Your task to perform on an android device: uninstall "Upside-Cash back on gas & food" Image 0: 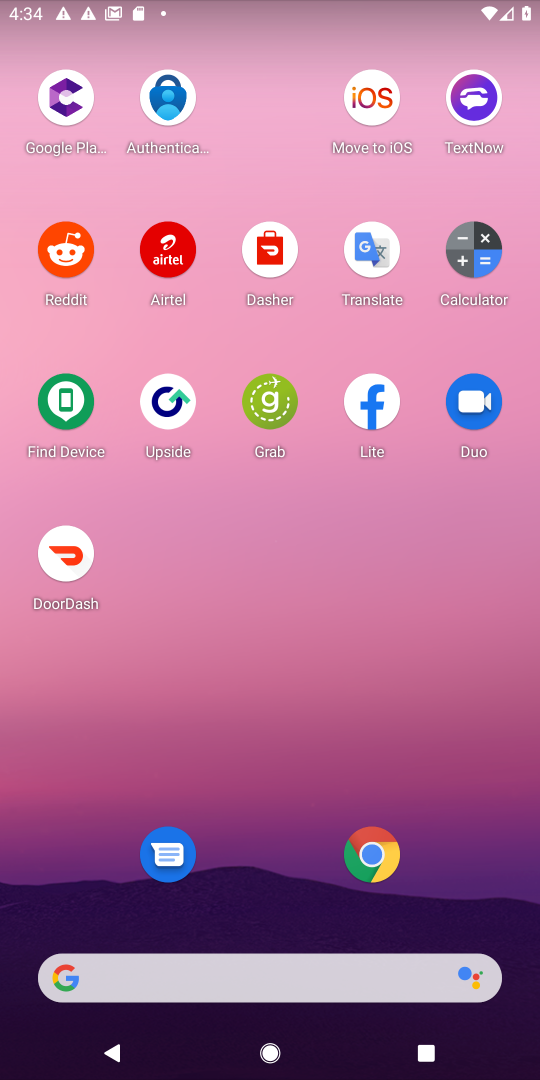
Step 0: drag from (255, 772) to (248, 26)
Your task to perform on an android device: uninstall "Upside-Cash back on gas & food" Image 1: 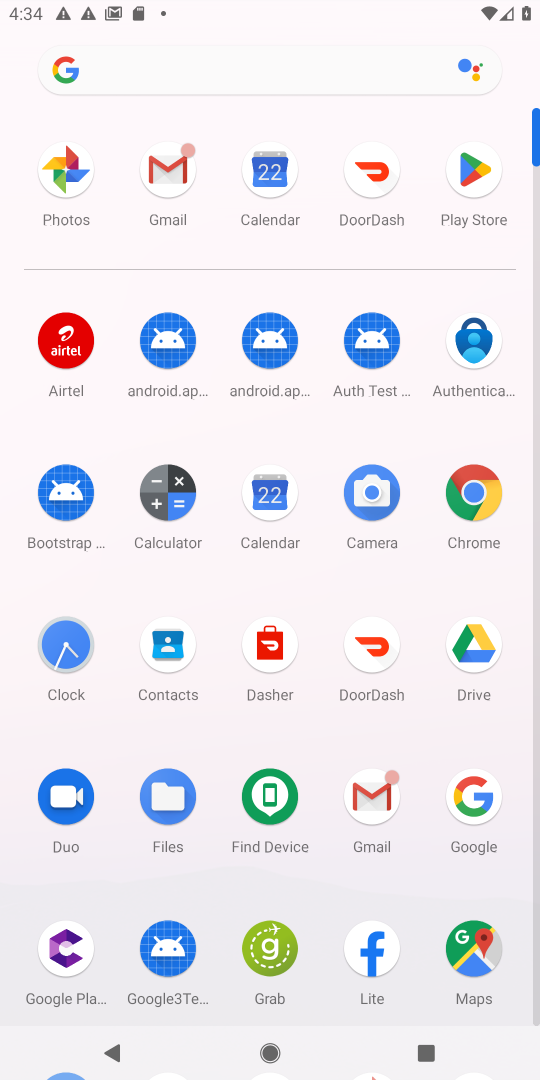
Step 1: click (478, 176)
Your task to perform on an android device: uninstall "Upside-Cash back on gas & food" Image 2: 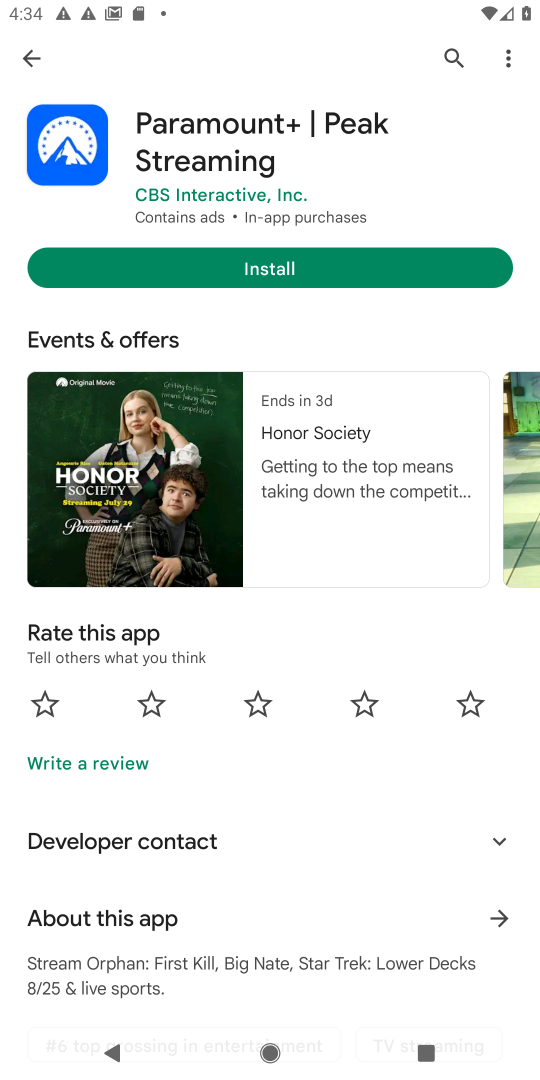
Step 2: click (469, 35)
Your task to perform on an android device: uninstall "Upside-Cash back on gas & food" Image 3: 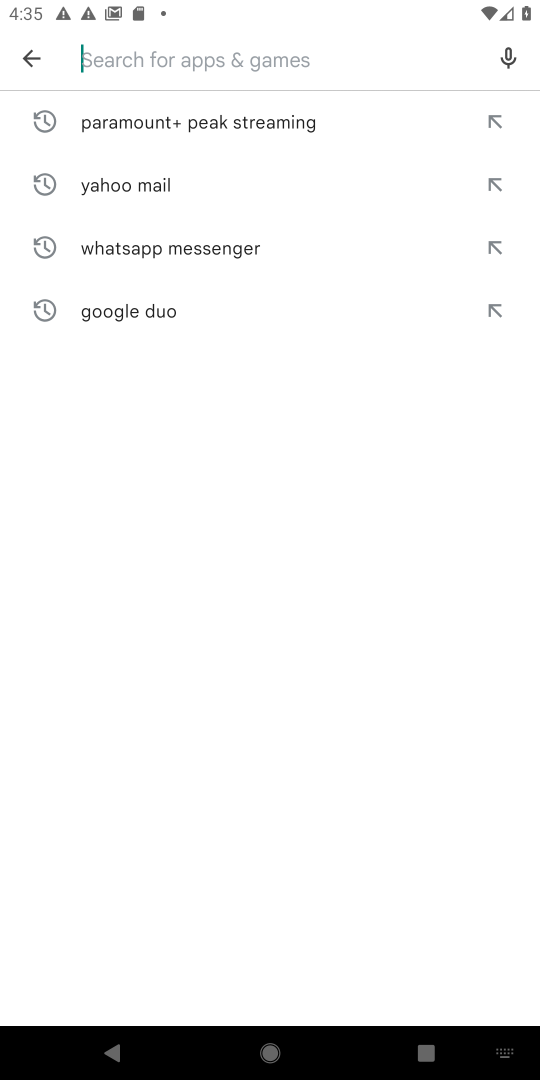
Step 3: type "Upside-Cash back on gas & food"
Your task to perform on an android device: uninstall "Upside-Cash back on gas & food" Image 4: 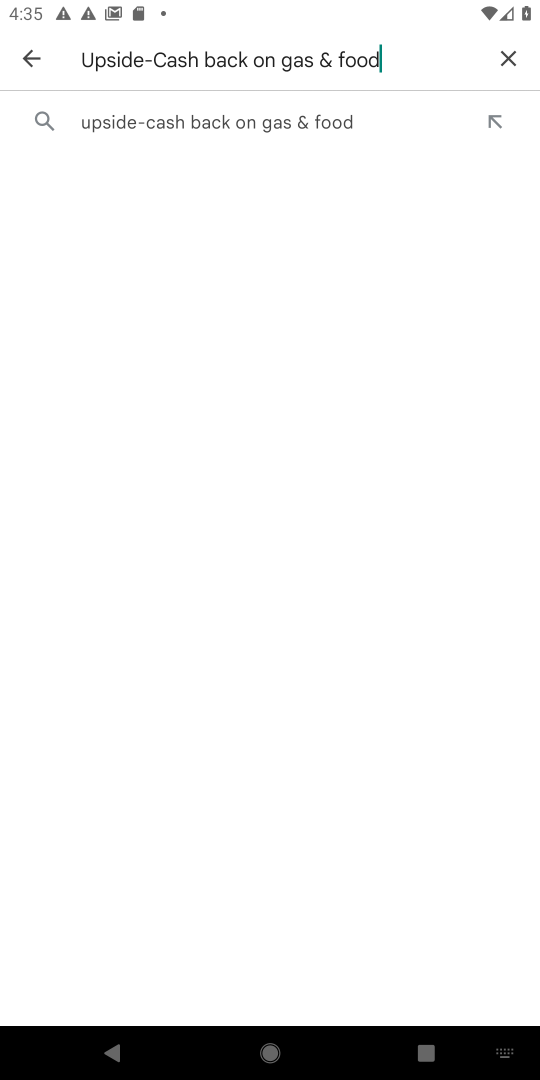
Step 4: type ""
Your task to perform on an android device: uninstall "Upside-Cash back on gas & food" Image 5: 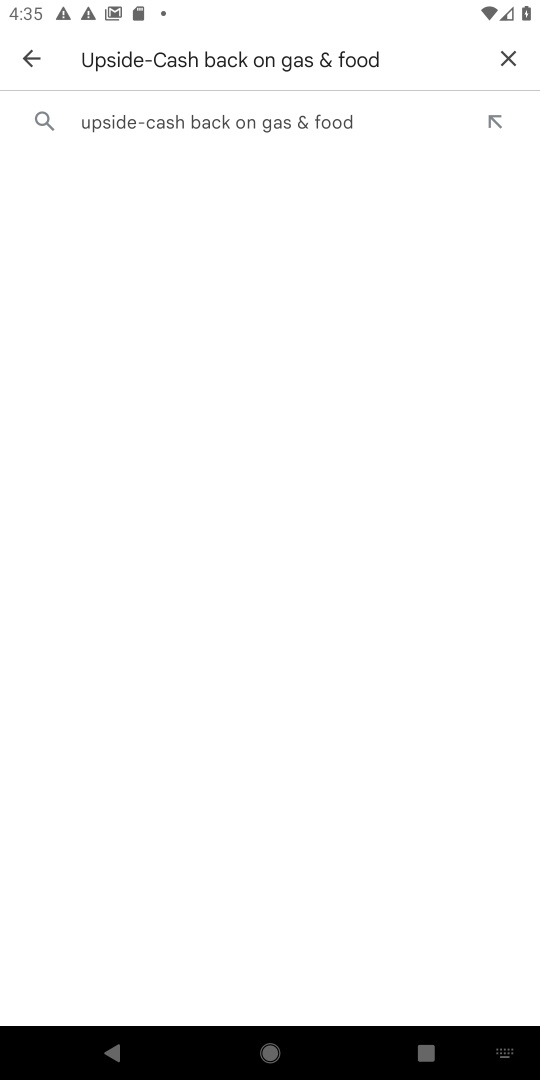
Step 5: click (287, 124)
Your task to perform on an android device: uninstall "Upside-Cash back on gas & food" Image 6: 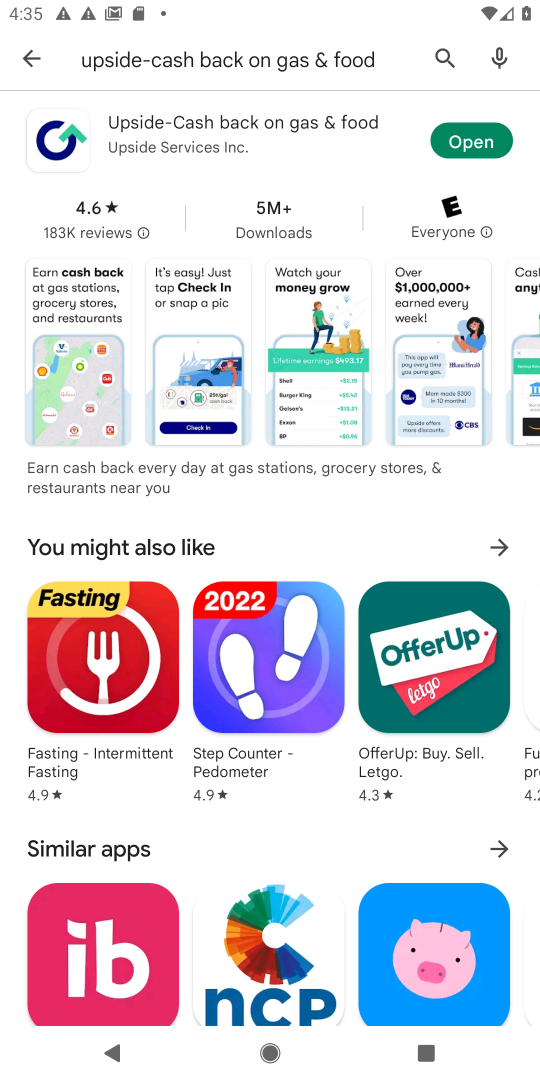
Step 6: click (178, 132)
Your task to perform on an android device: uninstall "Upside-Cash back on gas & food" Image 7: 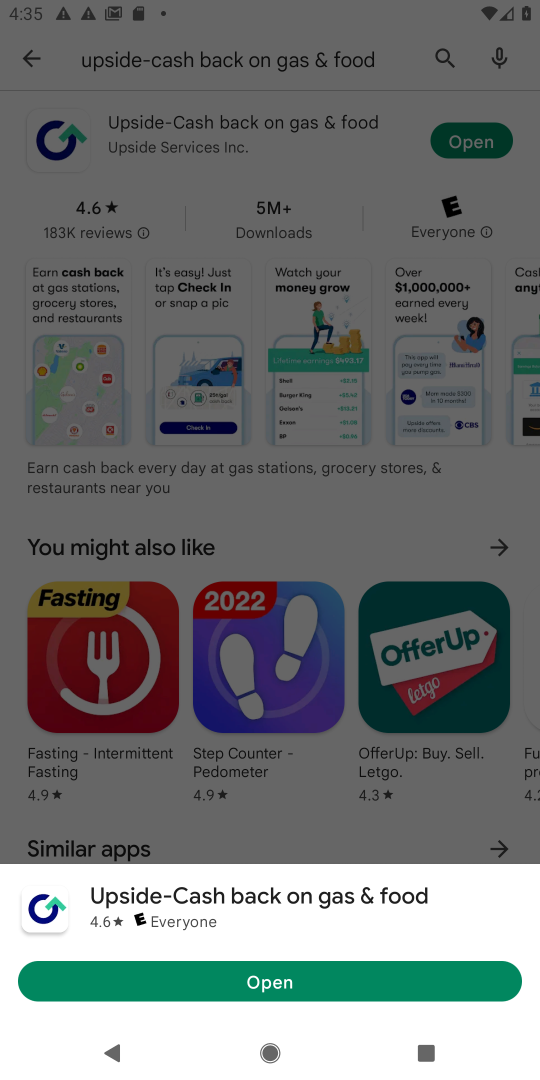
Step 7: click (198, 155)
Your task to perform on an android device: uninstall "Upside-Cash back on gas & food" Image 8: 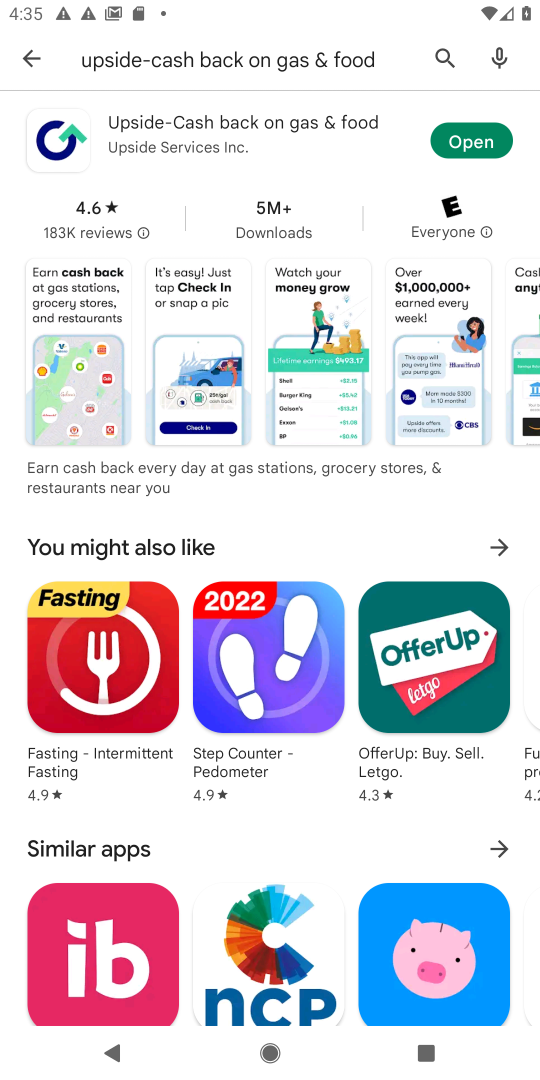
Step 8: click (48, 134)
Your task to perform on an android device: uninstall "Upside-Cash back on gas & food" Image 9: 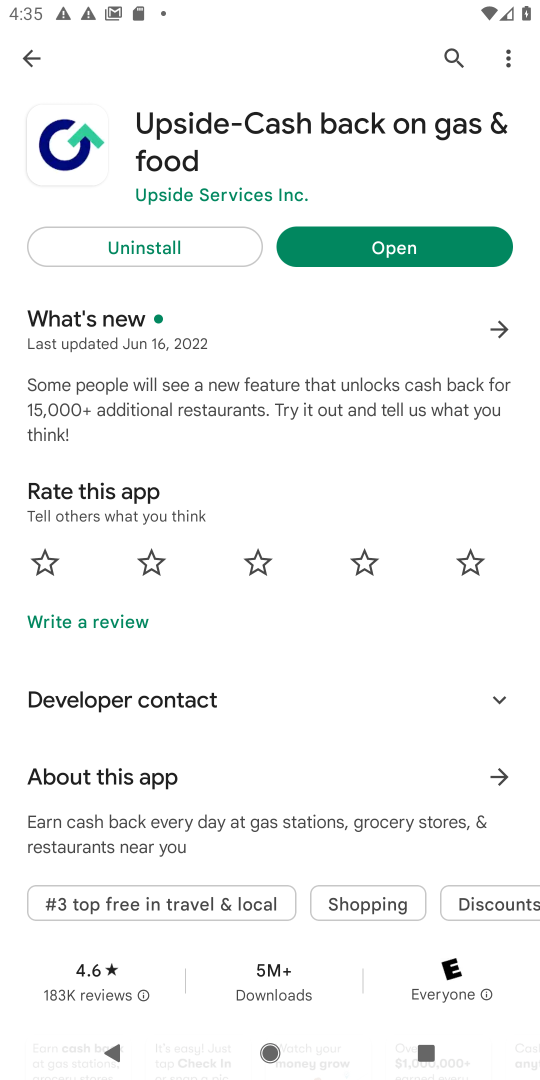
Step 9: click (152, 242)
Your task to perform on an android device: uninstall "Upside-Cash back on gas & food" Image 10: 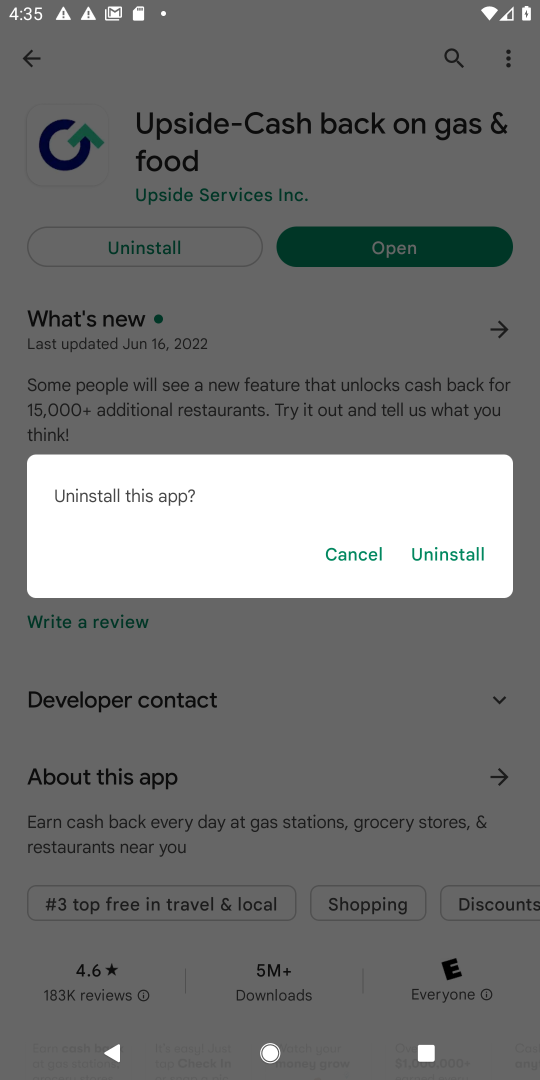
Step 10: click (441, 554)
Your task to perform on an android device: uninstall "Upside-Cash back on gas & food" Image 11: 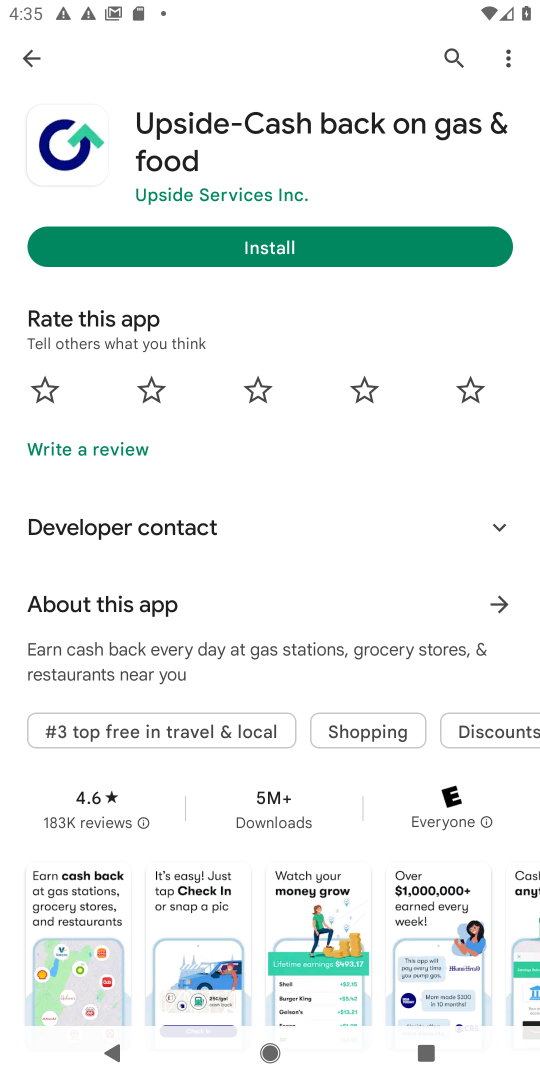
Step 11: task complete